Your task to perform on an android device: clear history in the chrome app Image 0: 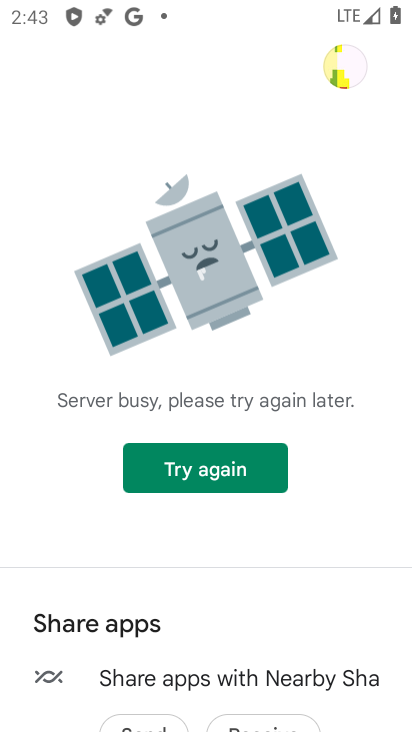
Step 0: press home button
Your task to perform on an android device: clear history in the chrome app Image 1: 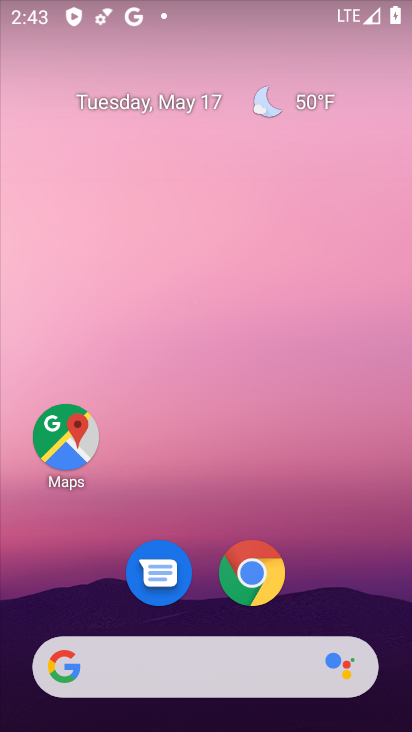
Step 1: click (257, 568)
Your task to perform on an android device: clear history in the chrome app Image 2: 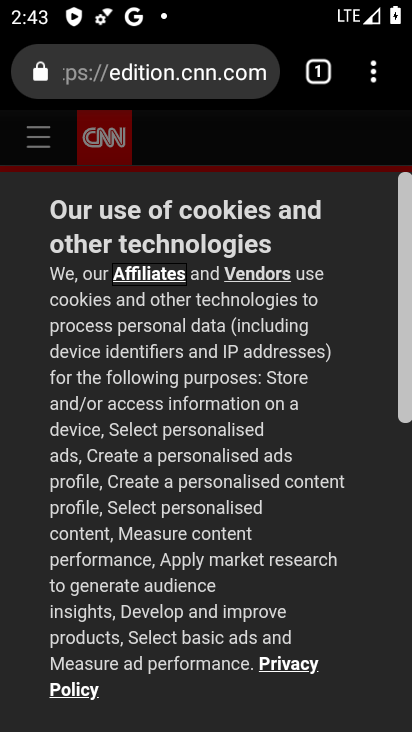
Step 2: task complete